Your task to perform on an android device: Check the news Image 0: 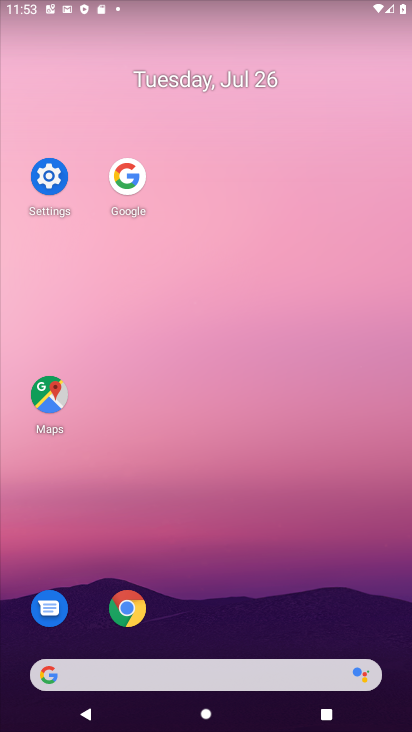
Step 0: click (130, 177)
Your task to perform on an android device: Check the news Image 1: 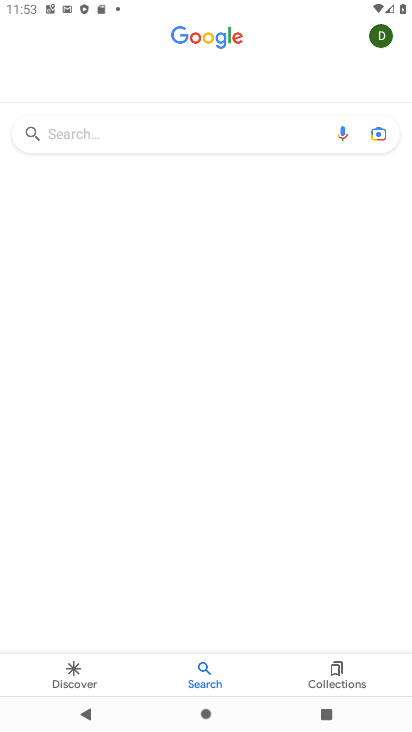
Step 1: click (152, 136)
Your task to perform on an android device: Check the news Image 2: 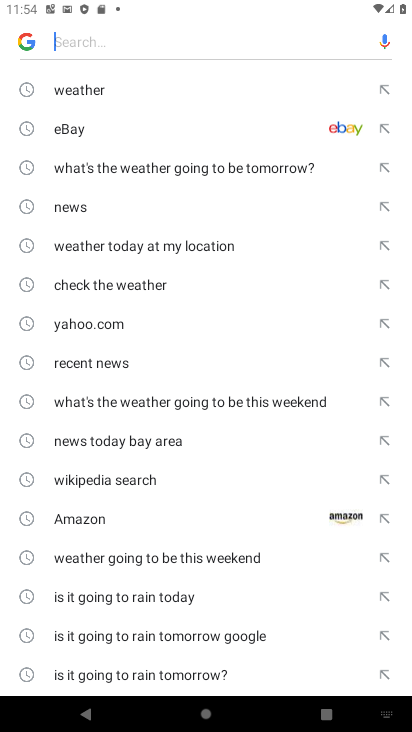
Step 2: click (82, 201)
Your task to perform on an android device: Check the news Image 3: 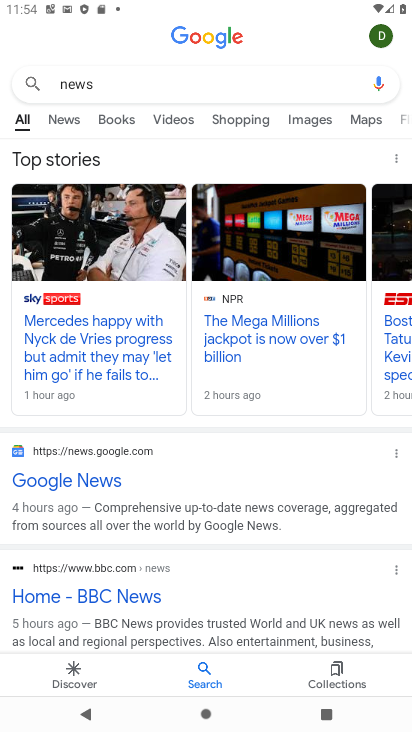
Step 3: task complete